Your task to perform on an android device: Open CNN.com Image 0: 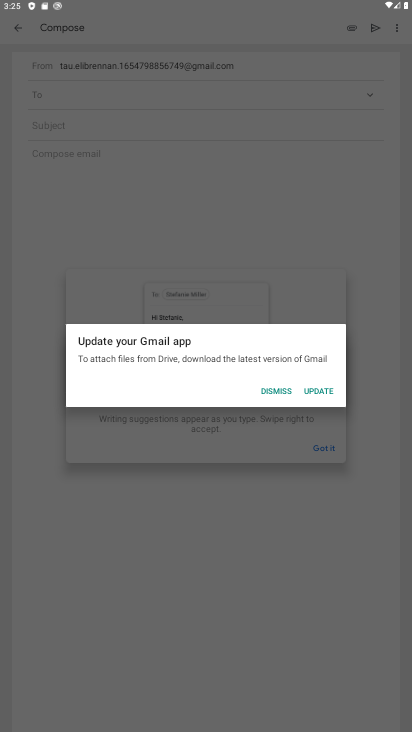
Step 0: press home button
Your task to perform on an android device: Open CNN.com Image 1: 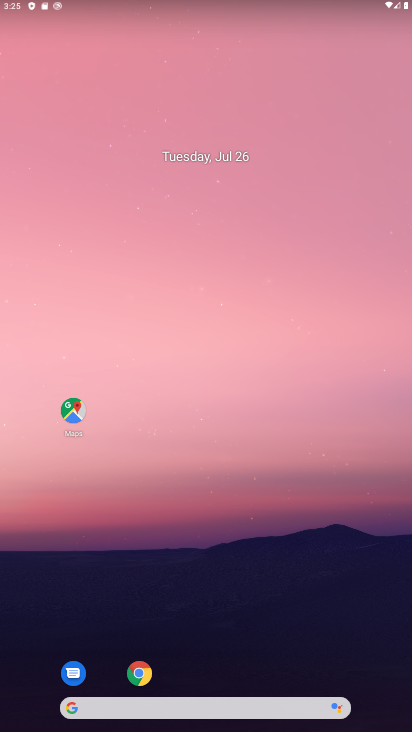
Step 1: click (144, 678)
Your task to perform on an android device: Open CNN.com Image 2: 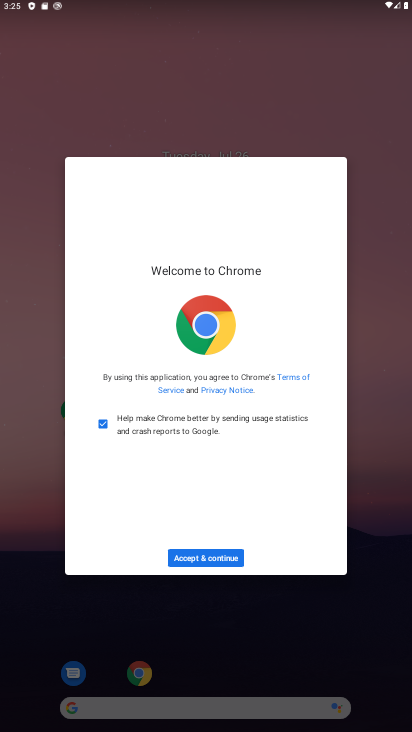
Step 2: click (200, 552)
Your task to perform on an android device: Open CNN.com Image 3: 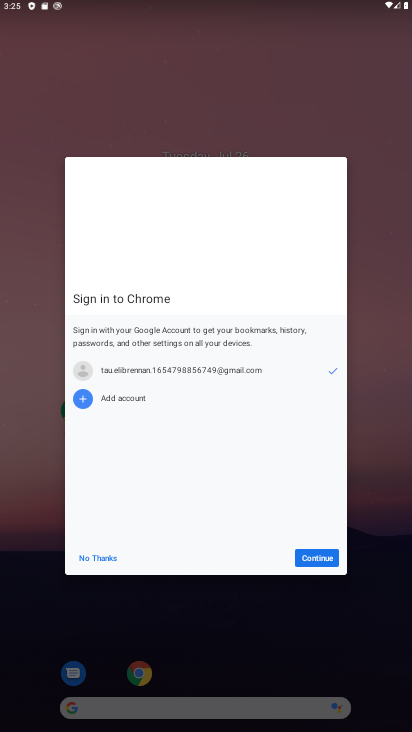
Step 3: click (95, 556)
Your task to perform on an android device: Open CNN.com Image 4: 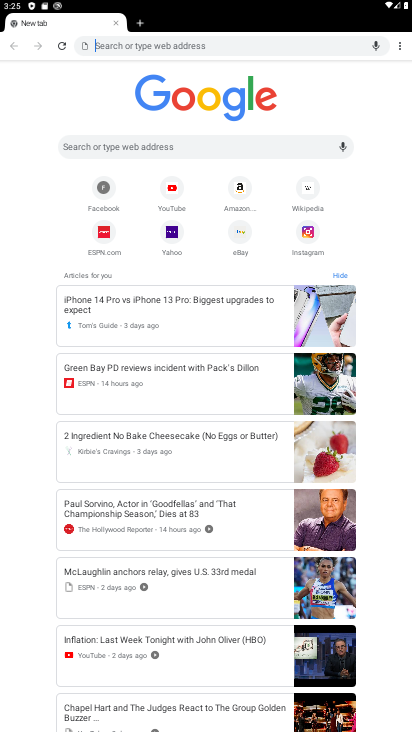
Step 4: click (116, 48)
Your task to perform on an android device: Open CNN.com Image 5: 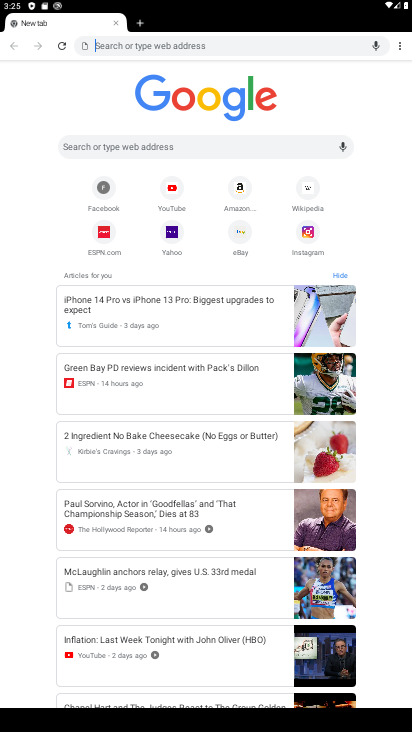
Step 5: type "cnn.com"
Your task to perform on an android device: Open CNN.com Image 6: 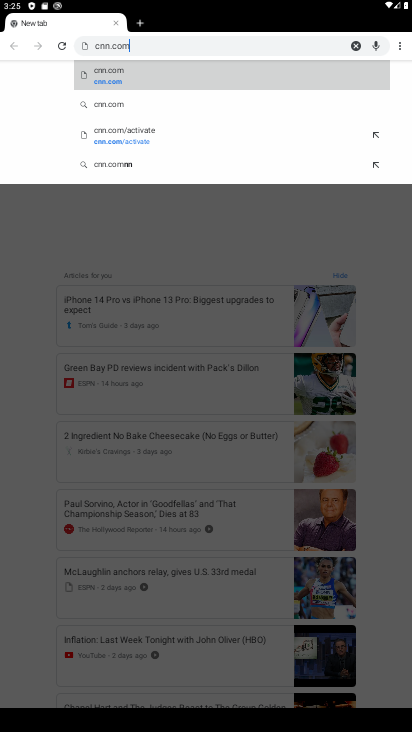
Step 6: click (111, 75)
Your task to perform on an android device: Open CNN.com Image 7: 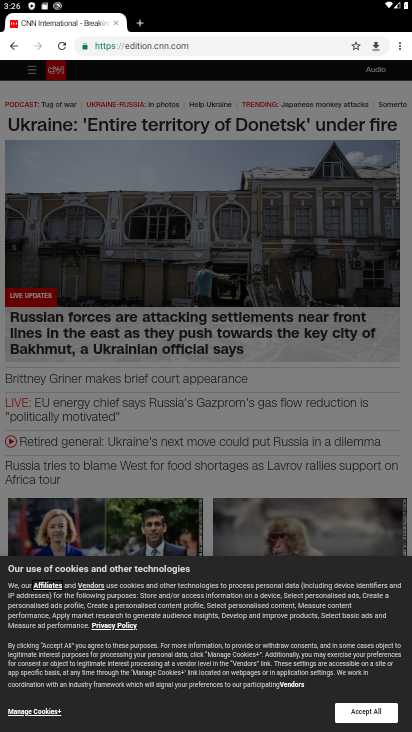
Step 7: task complete